Your task to perform on an android device: Open Youtube and go to "Your channel" Image 0: 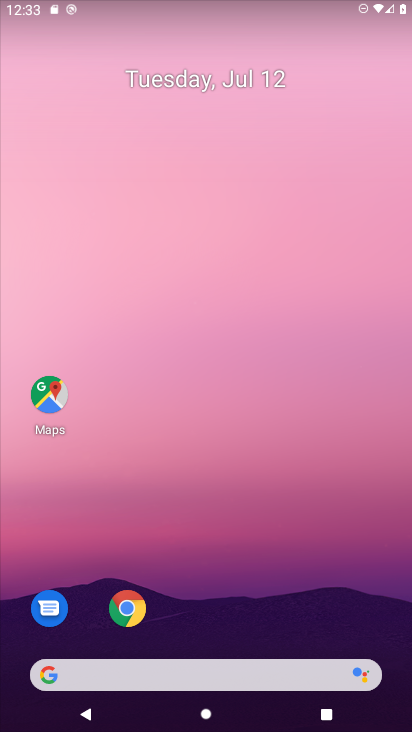
Step 0: drag from (180, 641) to (167, 178)
Your task to perform on an android device: Open Youtube and go to "Your channel" Image 1: 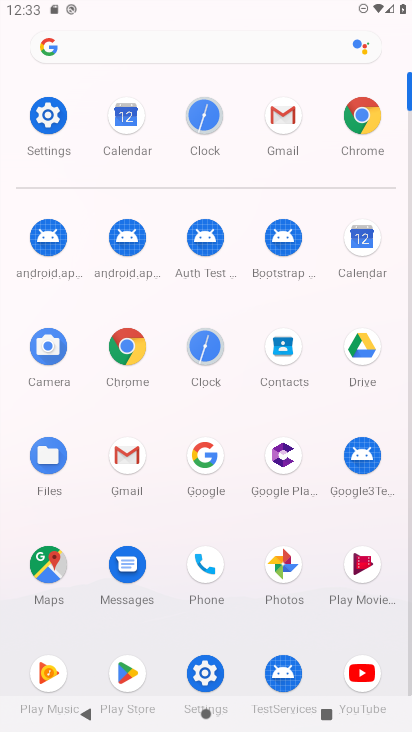
Step 1: click (362, 682)
Your task to perform on an android device: Open Youtube and go to "Your channel" Image 2: 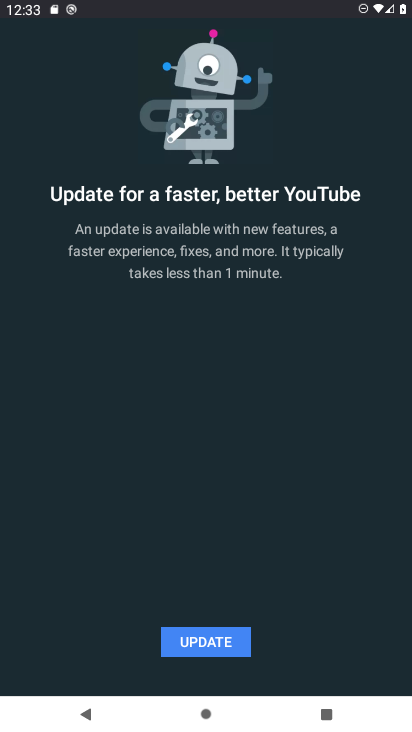
Step 2: click (230, 640)
Your task to perform on an android device: Open Youtube and go to "Your channel" Image 3: 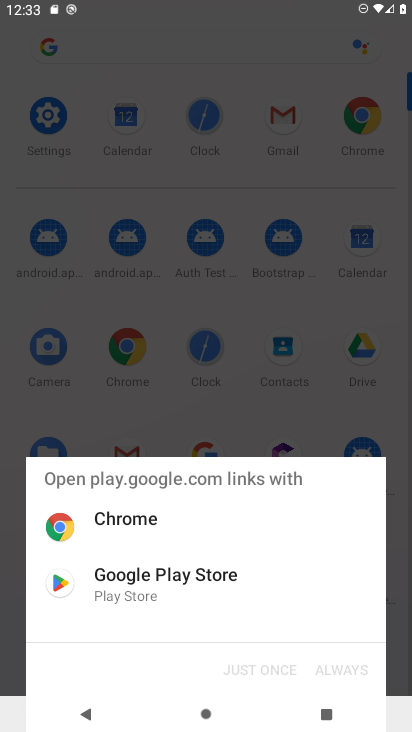
Step 3: drag from (80, 601) to (150, 601)
Your task to perform on an android device: Open Youtube and go to "Your channel" Image 4: 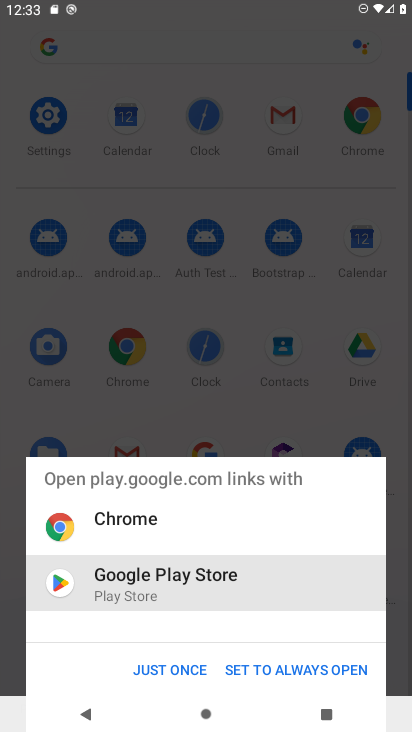
Step 4: click (184, 669)
Your task to perform on an android device: Open Youtube and go to "Your channel" Image 5: 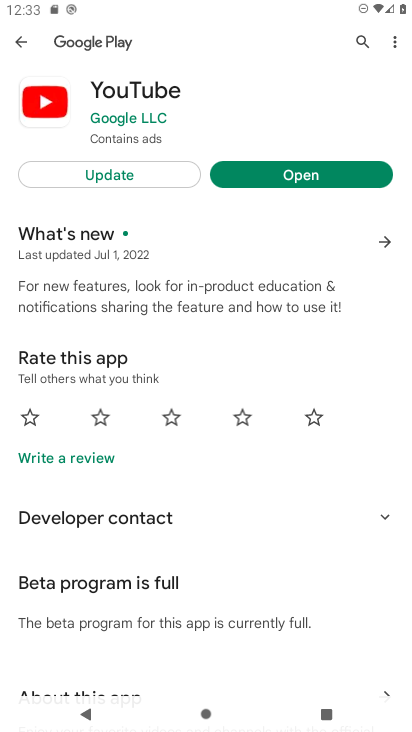
Step 5: click (134, 178)
Your task to perform on an android device: Open Youtube and go to "Your channel" Image 6: 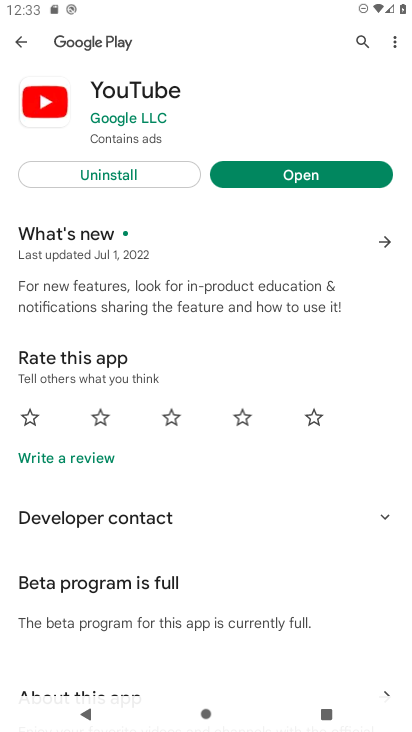
Step 6: click (285, 177)
Your task to perform on an android device: Open Youtube and go to "Your channel" Image 7: 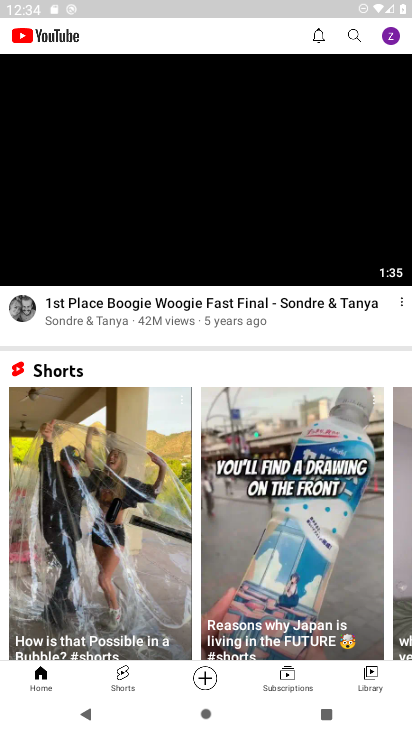
Step 7: click (377, 673)
Your task to perform on an android device: Open Youtube and go to "Your channel" Image 8: 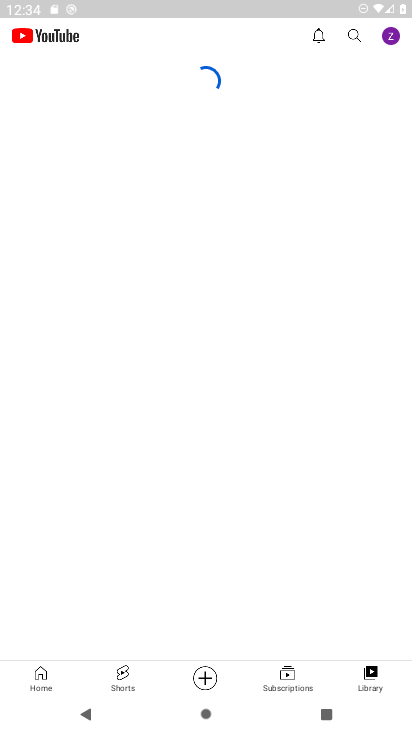
Step 8: click (383, 34)
Your task to perform on an android device: Open Youtube and go to "Your channel" Image 9: 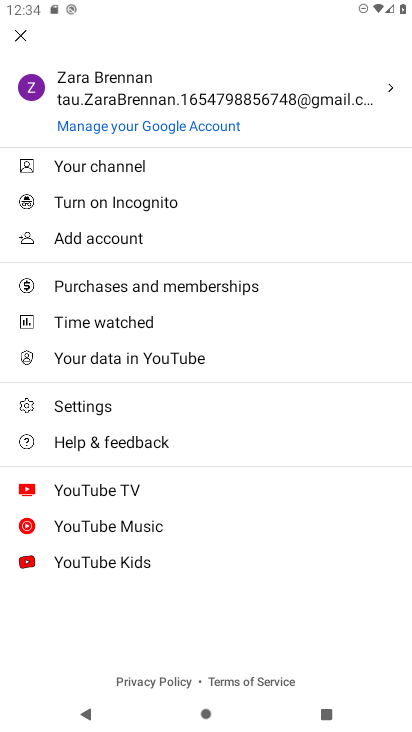
Step 9: click (88, 174)
Your task to perform on an android device: Open Youtube and go to "Your channel" Image 10: 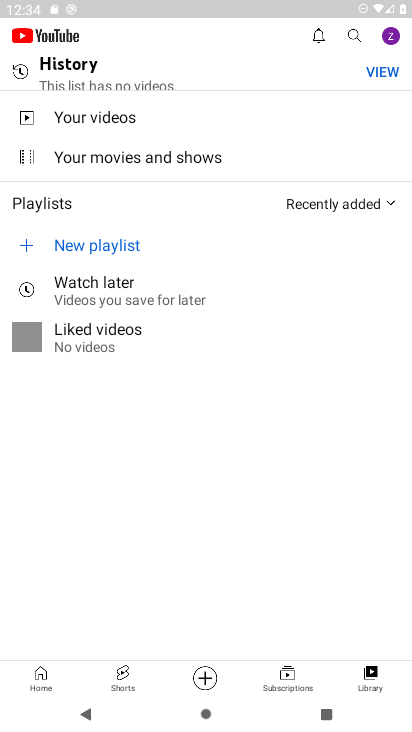
Step 10: task complete